Your task to perform on an android device: Open notification settings Image 0: 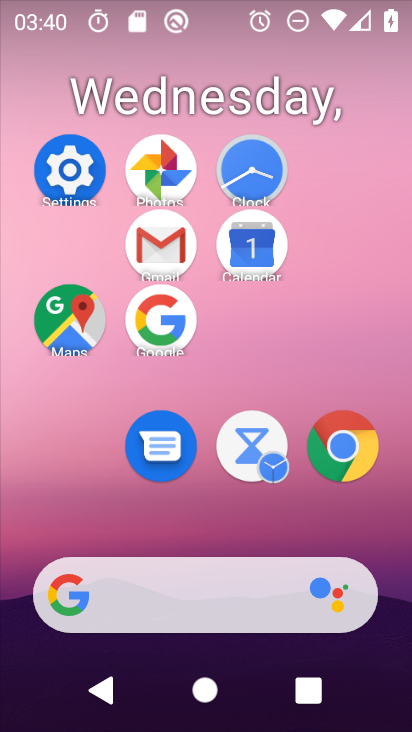
Step 0: click (88, 163)
Your task to perform on an android device: Open notification settings Image 1: 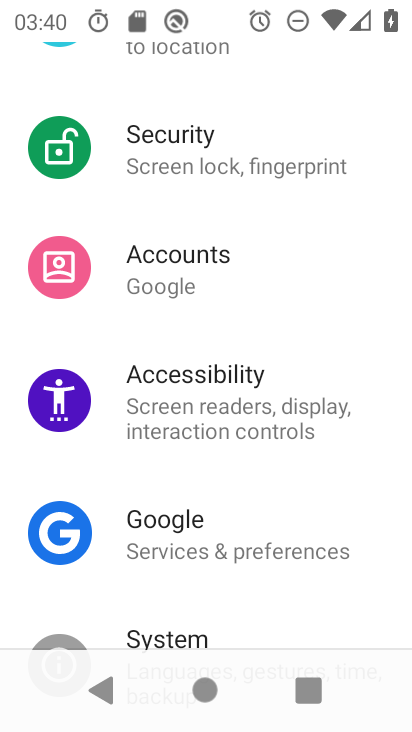
Step 1: drag from (332, 224) to (337, 612)
Your task to perform on an android device: Open notification settings Image 2: 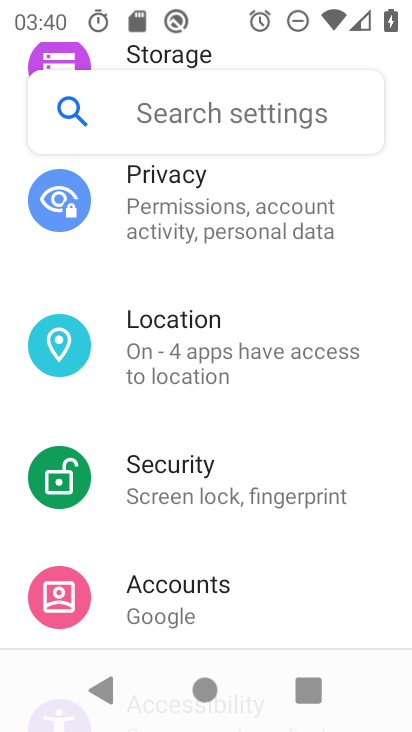
Step 2: drag from (278, 196) to (247, 615)
Your task to perform on an android device: Open notification settings Image 3: 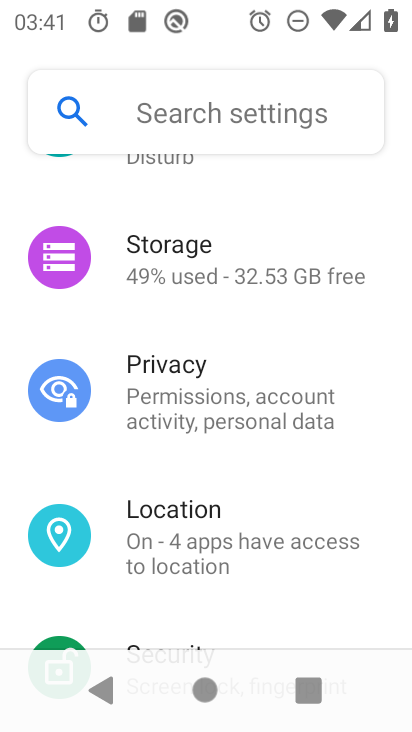
Step 3: drag from (298, 205) to (299, 590)
Your task to perform on an android device: Open notification settings Image 4: 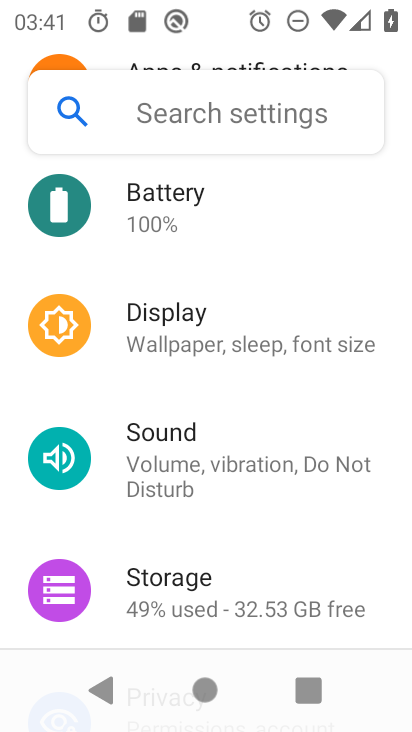
Step 4: drag from (283, 198) to (261, 687)
Your task to perform on an android device: Open notification settings Image 5: 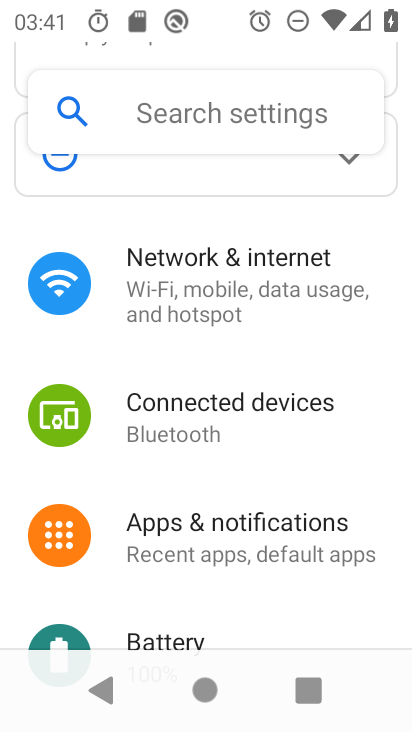
Step 5: click (262, 516)
Your task to perform on an android device: Open notification settings Image 6: 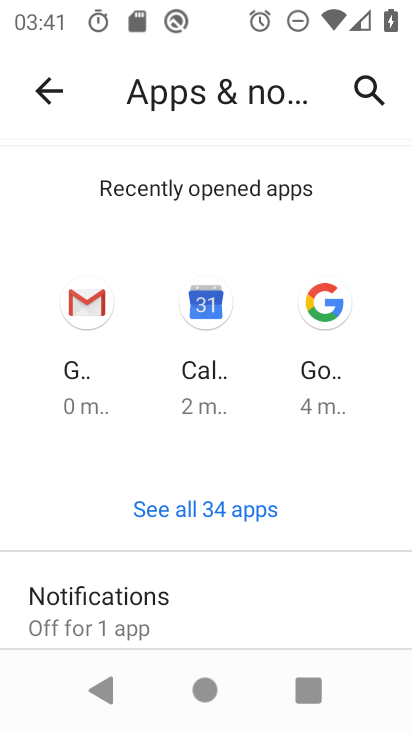
Step 6: task complete